Your task to perform on an android device: turn on notifications settings in the gmail app Image 0: 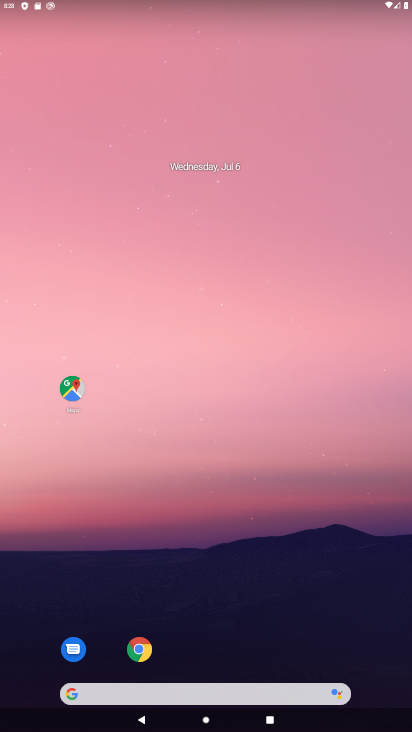
Step 0: press home button
Your task to perform on an android device: turn on notifications settings in the gmail app Image 1: 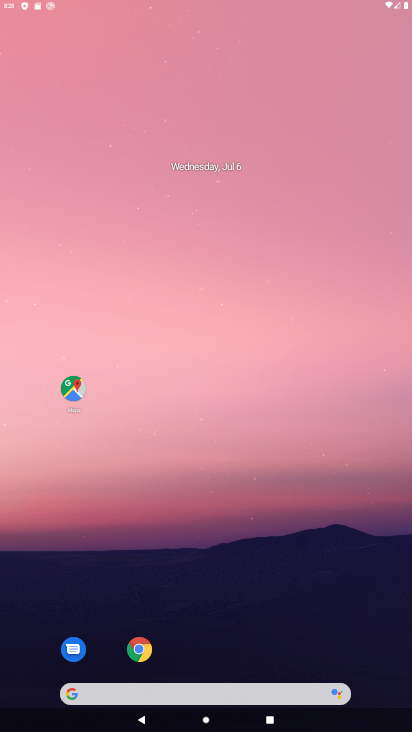
Step 1: drag from (209, 664) to (207, 103)
Your task to perform on an android device: turn on notifications settings in the gmail app Image 2: 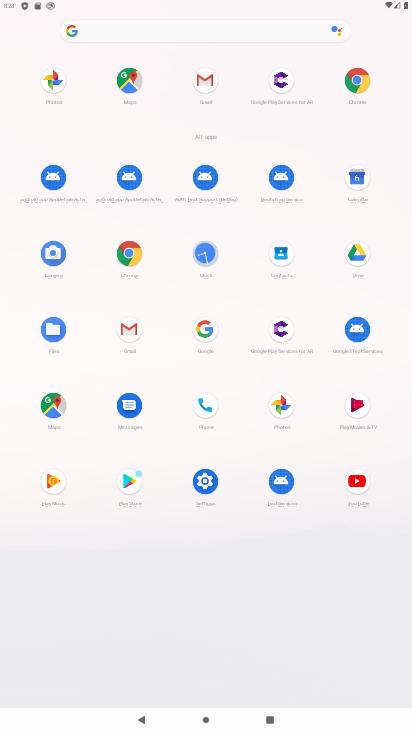
Step 2: click (202, 77)
Your task to perform on an android device: turn on notifications settings in the gmail app Image 3: 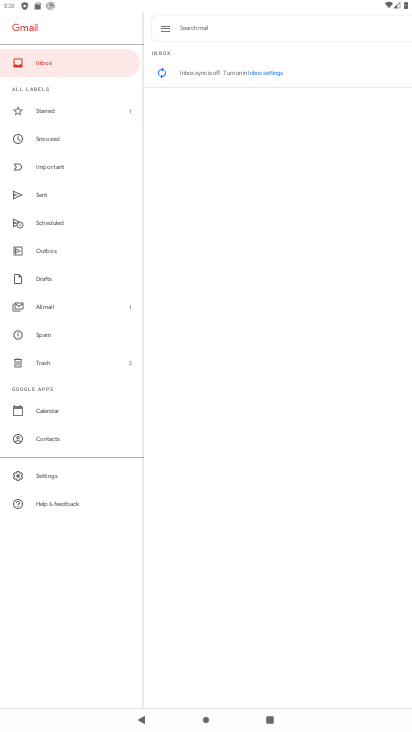
Step 3: click (43, 473)
Your task to perform on an android device: turn on notifications settings in the gmail app Image 4: 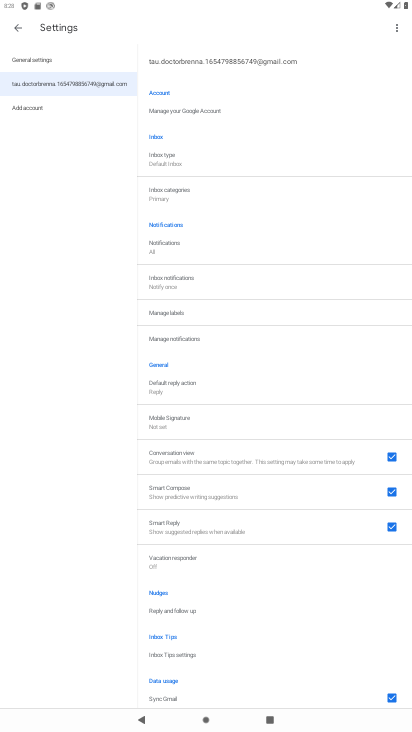
Step 4: click (34, 61)
Your task to perform on an android device: turn on notifications settings in the gmail app Image 5: 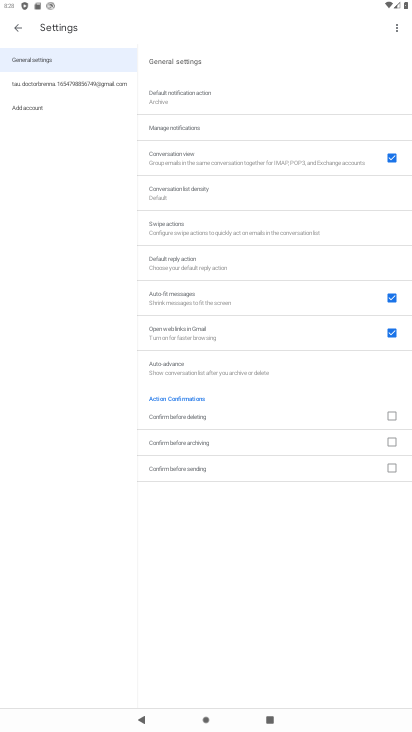
Step 5: click (194, 60)
Your task to perform on an android device: turn on notifications settings in the gmail app Image 6: 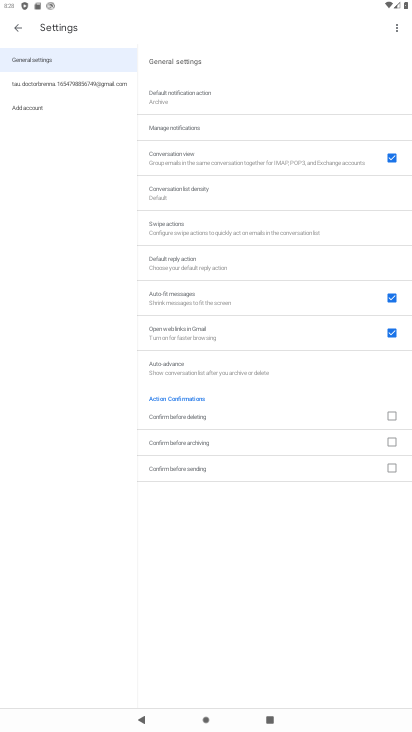
Step 6: click (193, 96)
Your task to perform on an android device: turn on notifications settings in the gmail app Image 7: 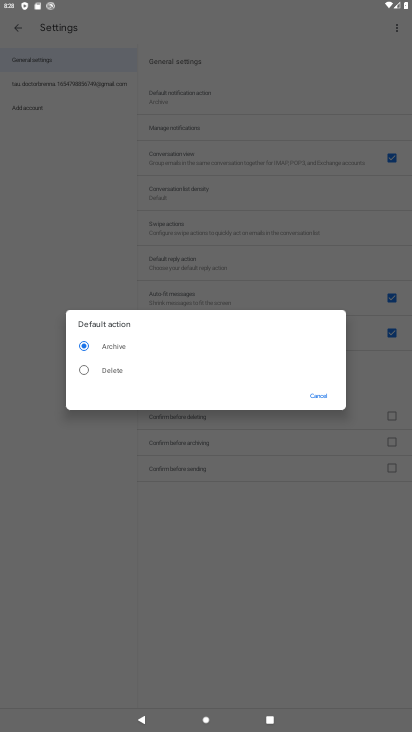
Step 7: click (313, 400)
Your task to perform on an android device: turn on notifications settings in the gmail app Image 8: 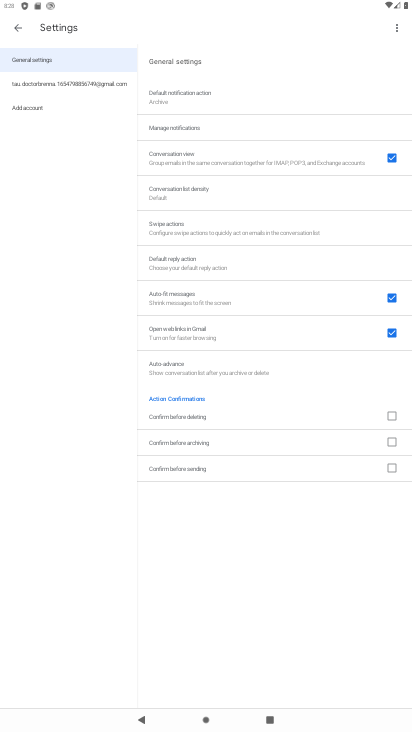
Step 8: click (204, 130)
Your task to perform on an android device: turn on notifications settings in the gmail app Image 9: 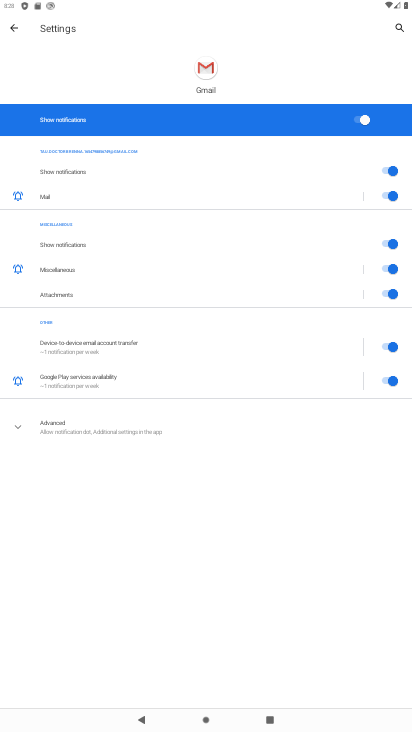
Step 9: task complete